Your task to perform on an android device: delete a single message in the gmail app Image 0: 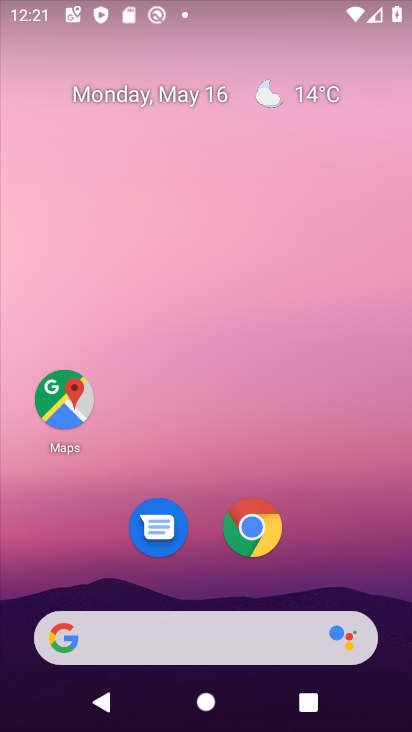
Step 0: drag from (206, 638) to (276, 56)
Your task to perform on an android device: delete a single message in the gmail app Image 1: 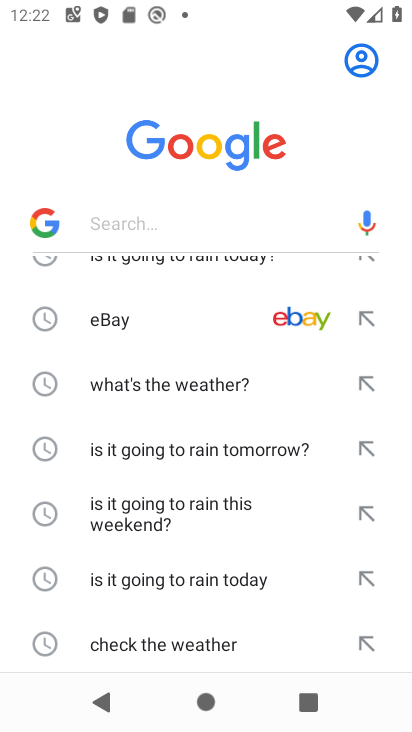
Step 1: press home button
Your task to perform on an android device: delete a single message in the gmail app Image 2: 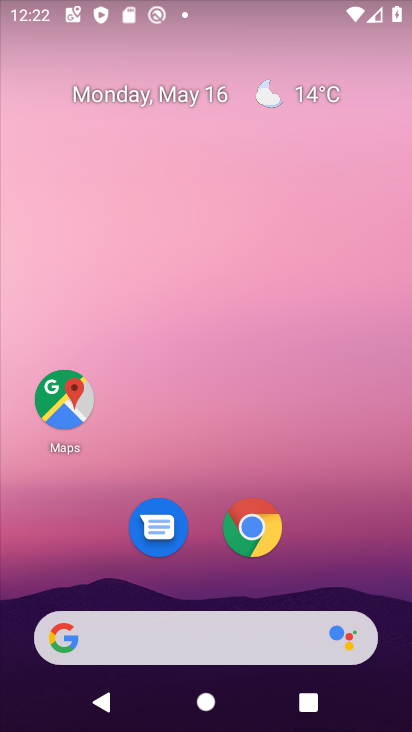
Step 2: drag from (198, 565) to (224, 3)
Your task to perform on an android device: delete a single message in the gmail app Image 3: 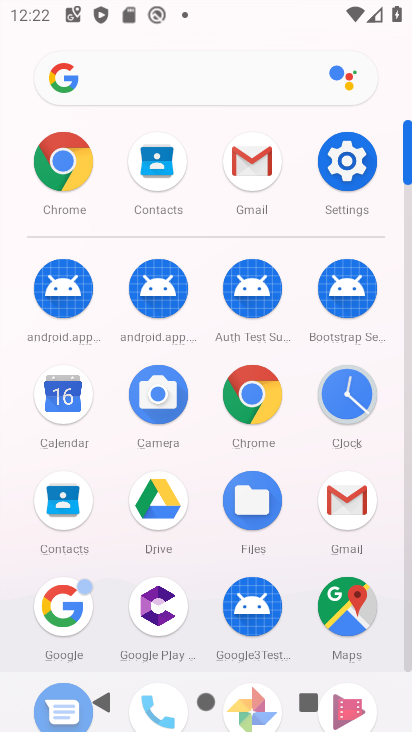
Step 3: click (351, 513)
Your task to perform on an android device: delete a single message in the gmail app Image 4: 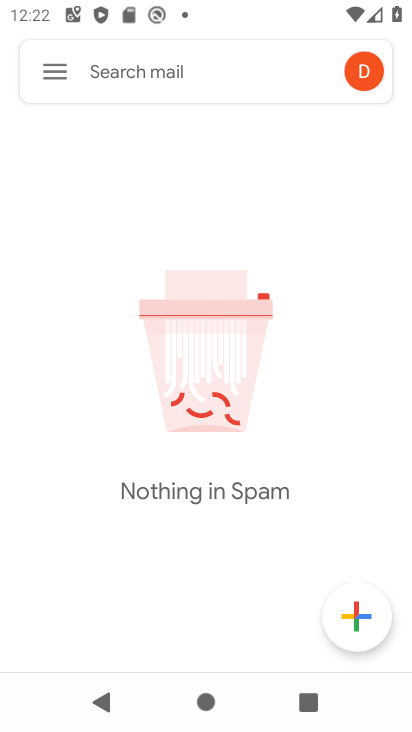
Step 4: click (58, 72)
Your task to perform on an android device: delete a single message in the gmail app Image 5: 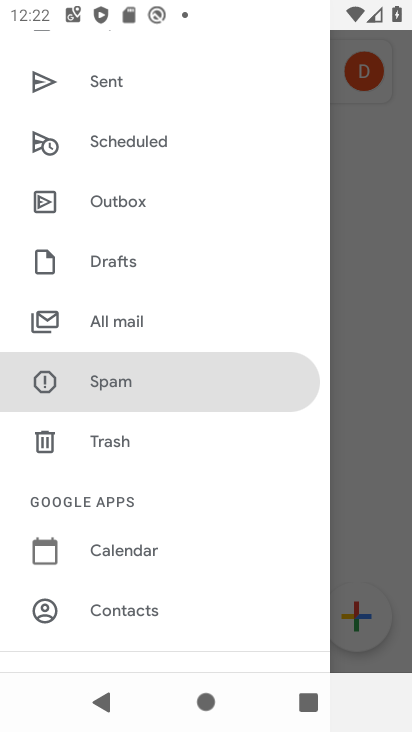
Step 5: click (119, 323)
Your task to perform on an android device: delete a single message in the gmail app Image 6: 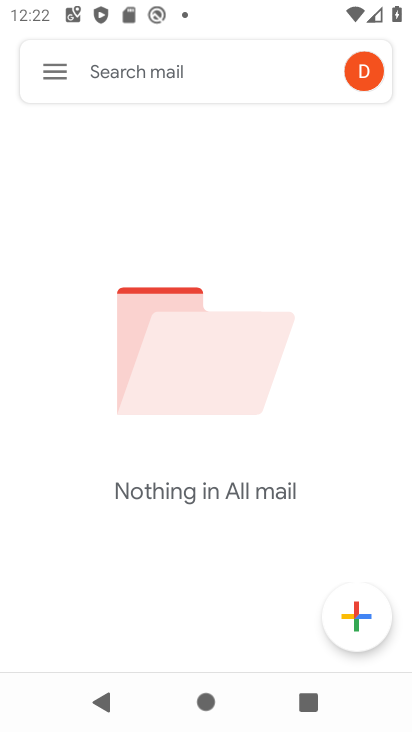
Step 6: task complete